Your task to perform on an android device: What's on my calendar tomorrow? Image 0: 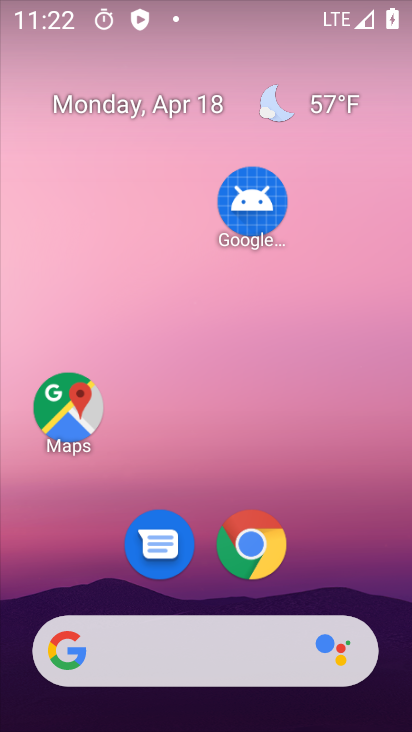
Step 0: drag from (308, 504) to (303, 230)
Your task to perform on an android device: What's on my calendar tomorrow? Image 1: 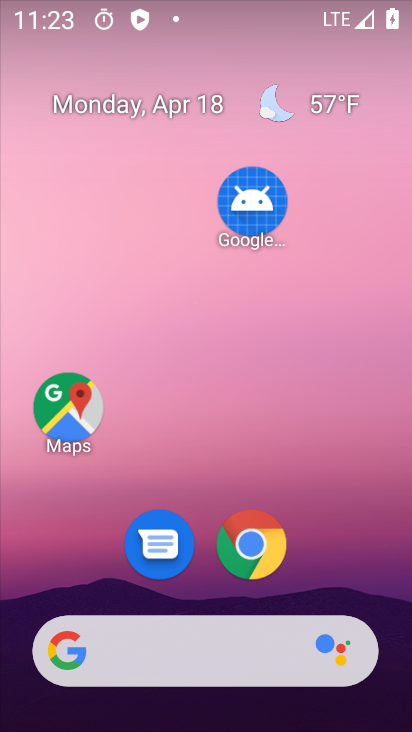
Step 1: drag from (270, 524) to (321, 161)
Your task to perform on an android device: What's on my calendar tomorrow? Image 2: 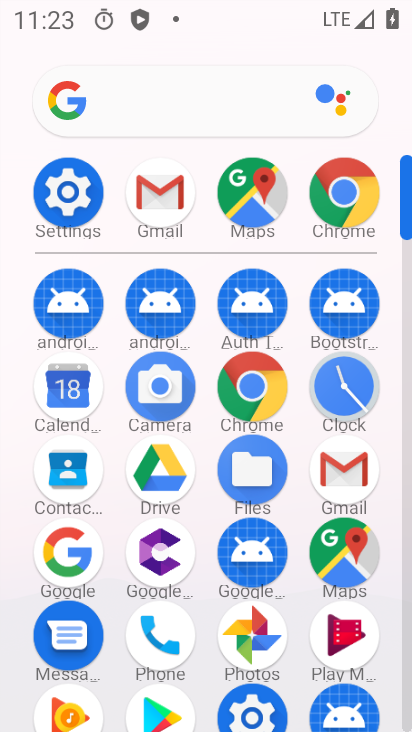
Step 2: click (72, 393)
Your task to perform on an android device: What's on my calendar tomorrow? Image 3: 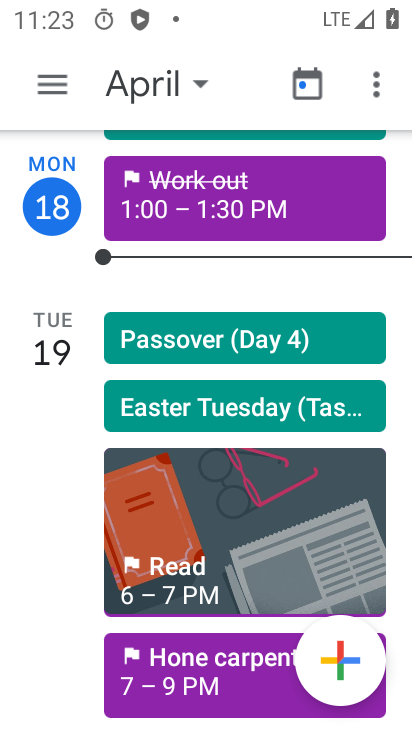
Step 3: click (43, 74)
Your task to perform on an android device: What's on my calendar tomorrow? Image 4: 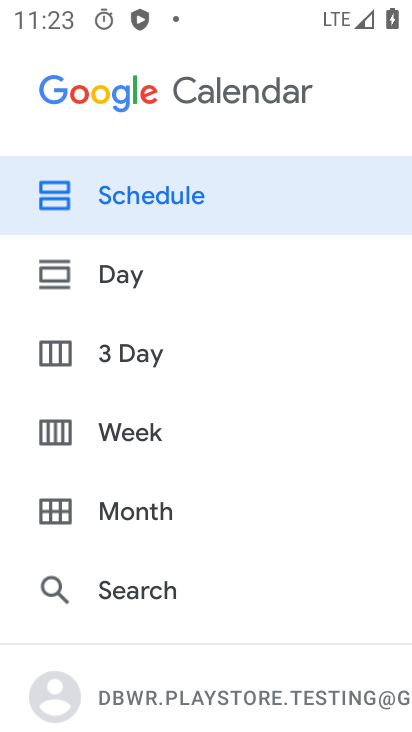
Step 4: click (145, 505)
Your task to perform on an android device: What's on my calendar tomorrow? Image 5: 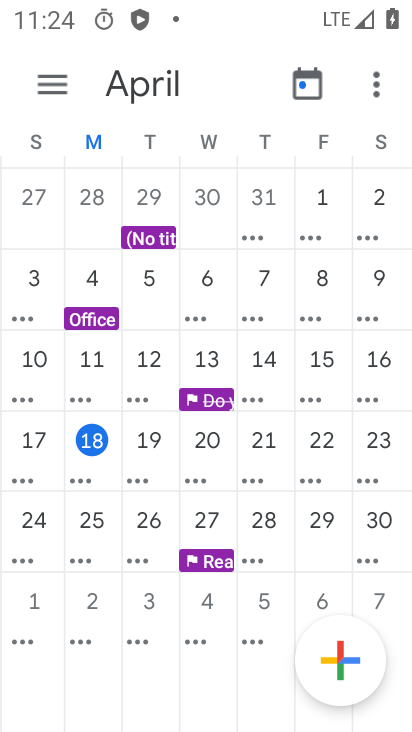
Step 5: click (132, 450)
Your task to perform on an android device: What's on my calendar tomorrow? Image 6: 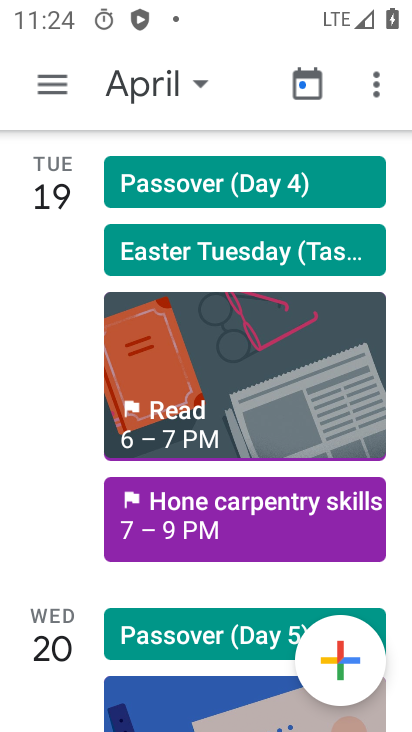
Step 6: click (182, 546)
Your task to perform on an android device: What's on my calendar tomorrow? Image 7: 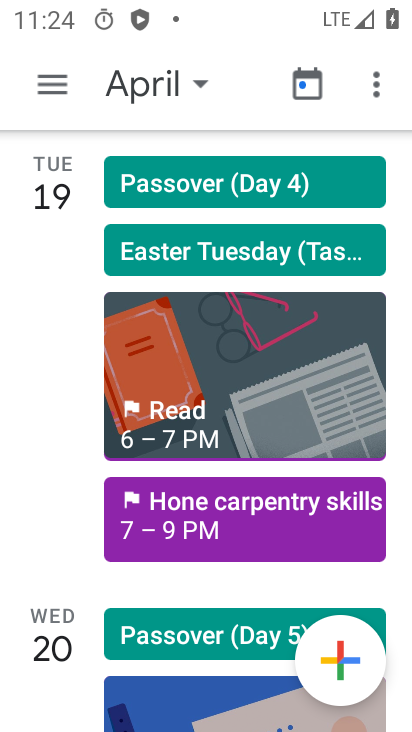
Step 7: click (190, 512)
Your task to perform on an android device: What's on my calendar tomorrow? Image 8: 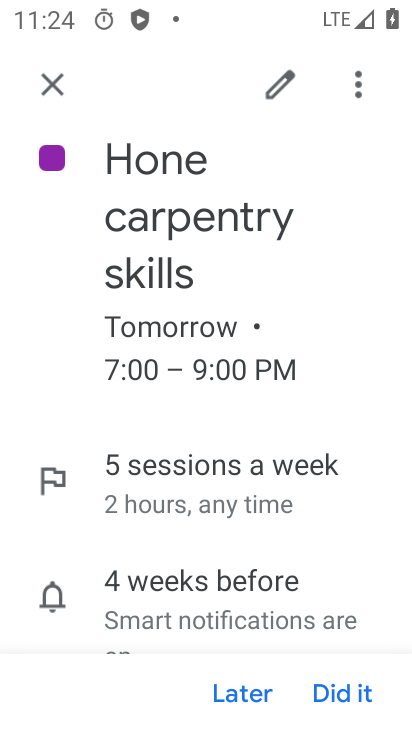
Step 8: click (47, 71)
Your task to perform on an android device: What's on my calendar tomorrow? Image 9: 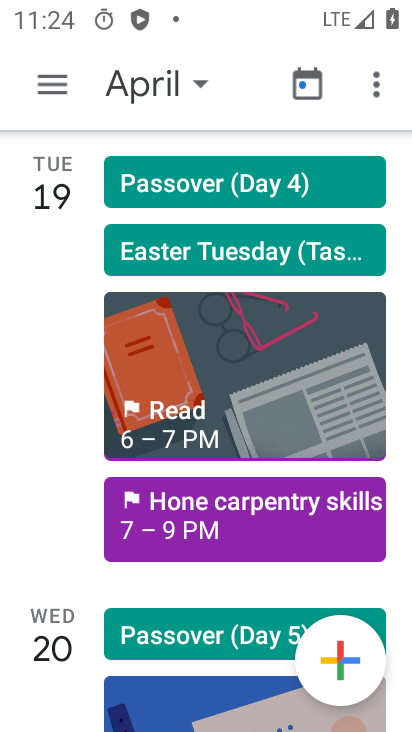
Step 9: task complete